Your task to perform on an android device: Open calendar and show me the second week of next month Image 0: 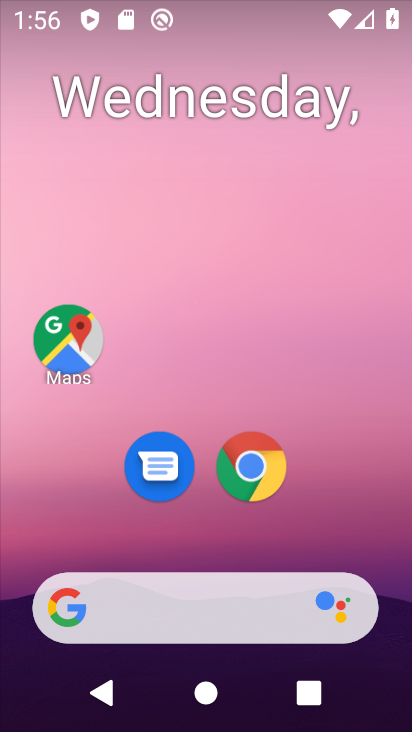
Step 0: drag from (358, 521) to (358, 192)
Your task to perform on an android device: Open calendar and show me the second week of next month Image 1: 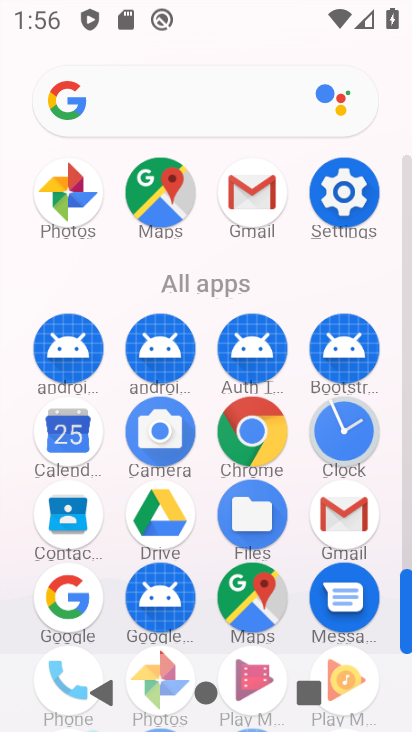
Step 1: drag from (292, 635) to (320, 332)
Your task to perform on an android device: Open calendar and show me the second week of next month Image 2: 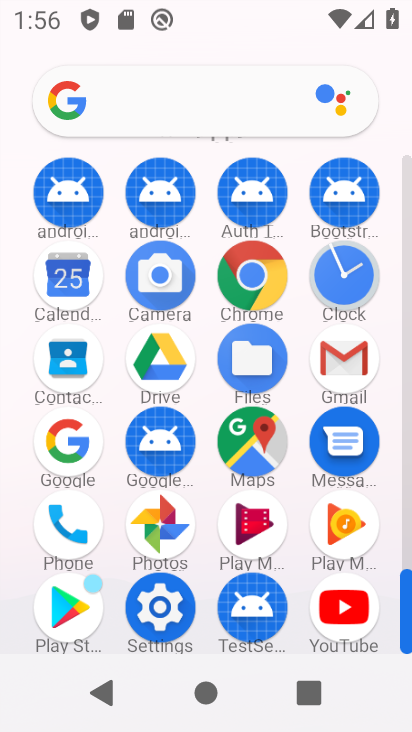
Step 2: click (70, 280)
Your task to perform on an android device: Open calendar and show me the second week of next month Image 3: 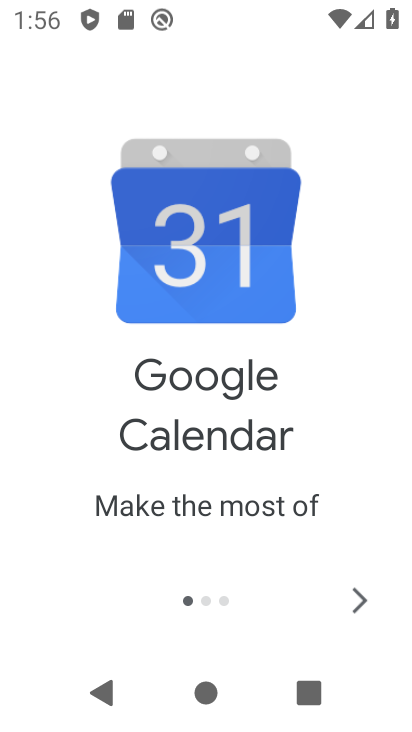
Step 3: click (363, 592)
Your task to perform on an android device: Open calendar and show me the second week of next month Image 4: 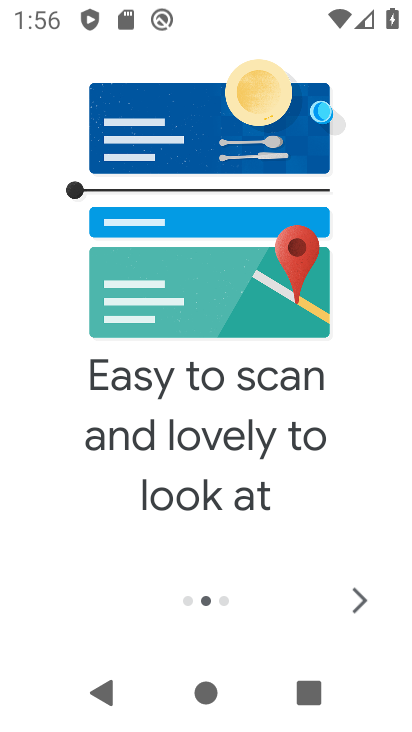
Step 4: click (362, 592)
Your task to perform on an android device: Open calendar and show me the second week of next month Image 5: 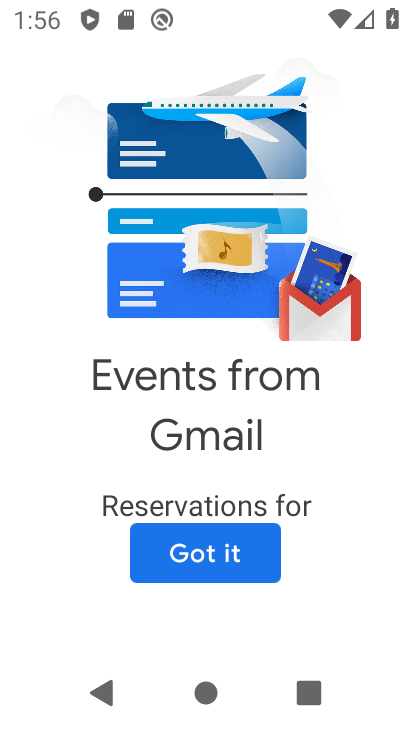
Step 5: click (361, 591)
Your task to perform on an android device: Open calendar and show me the second week of next month Image 6: 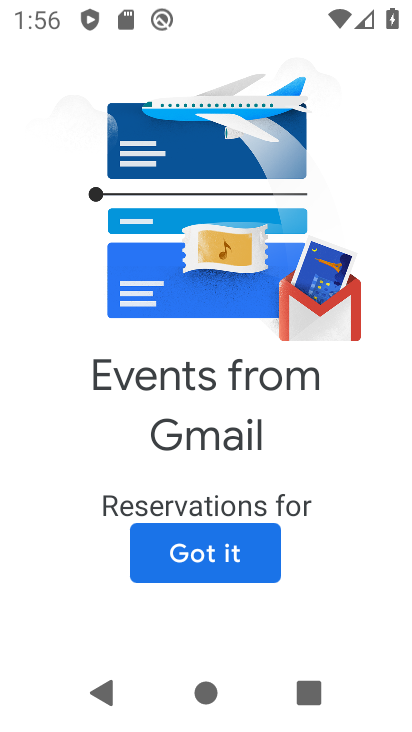
Step 6: click (209, 575)
Your task to perform on an android device: Open calendar and show me the second week of next month Image 7: 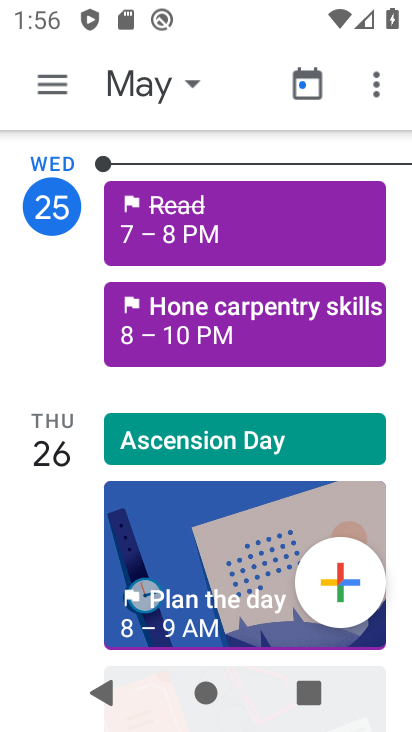
Step 7: click (156, 91)
Your task to perform on an android device: Open calendar and show me the second week of next month Image 8: 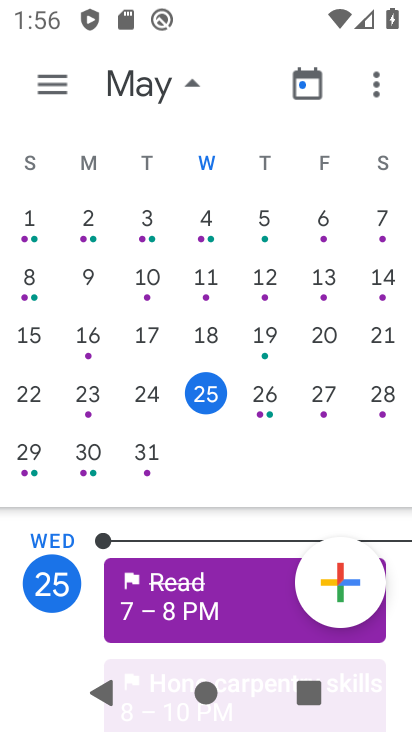
Step 8: drag from (350, 302) to (0, 293)
Your task to perform on an android device: Open calendar and show me the second week of next month Image 9: 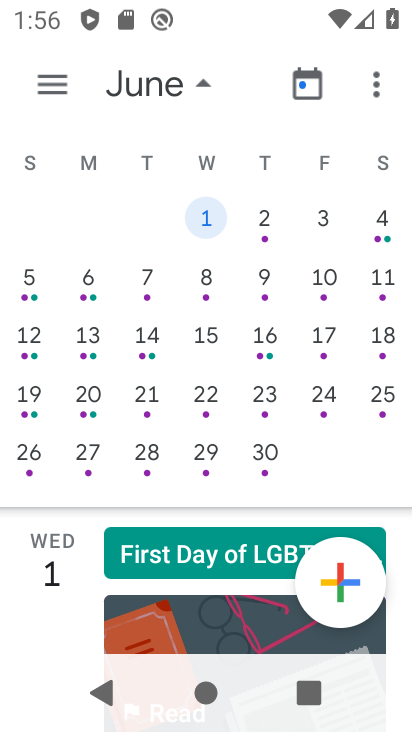
Step 9: click (40, 289)
Your task to perform on an android device: Open calendar and show me the second week of next month Image 10: 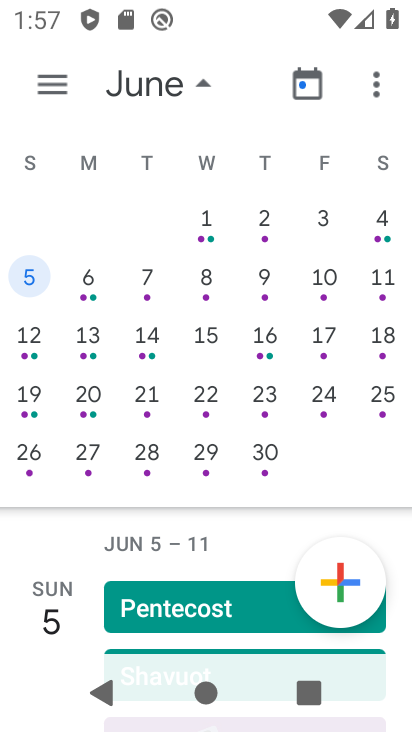
Step 10: task complete